Your task to perform on an android device: see tabs open on other devices in the chrome app Image 0: 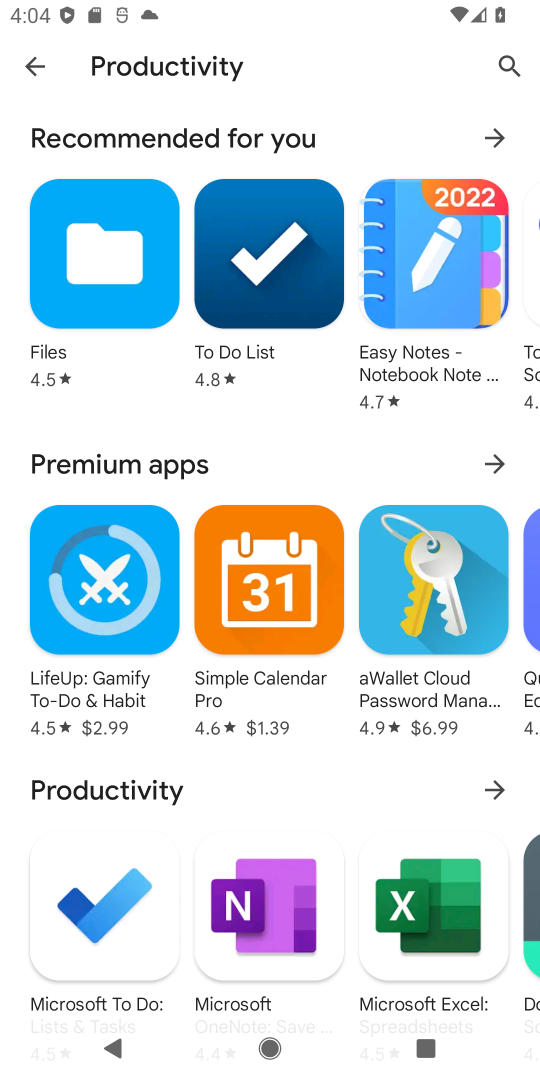
Step 0: press home button
Your task to perform on an android device: see tabs open on other devices in the chrome app Image 1: 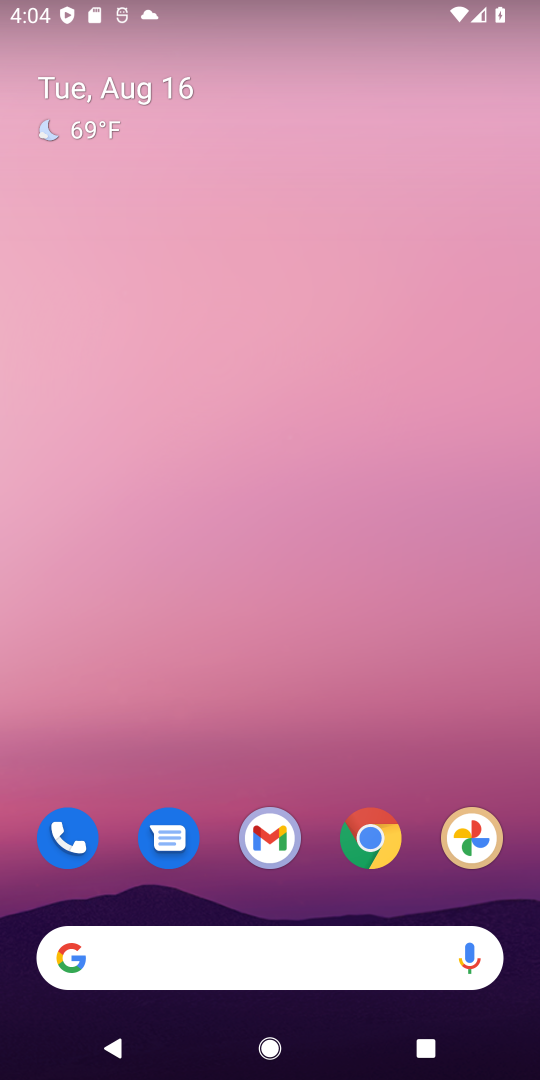
Step 1: click (376, 841)
Your task to perform on an android device: see tabs open on other devices in the chrome app Image 2: 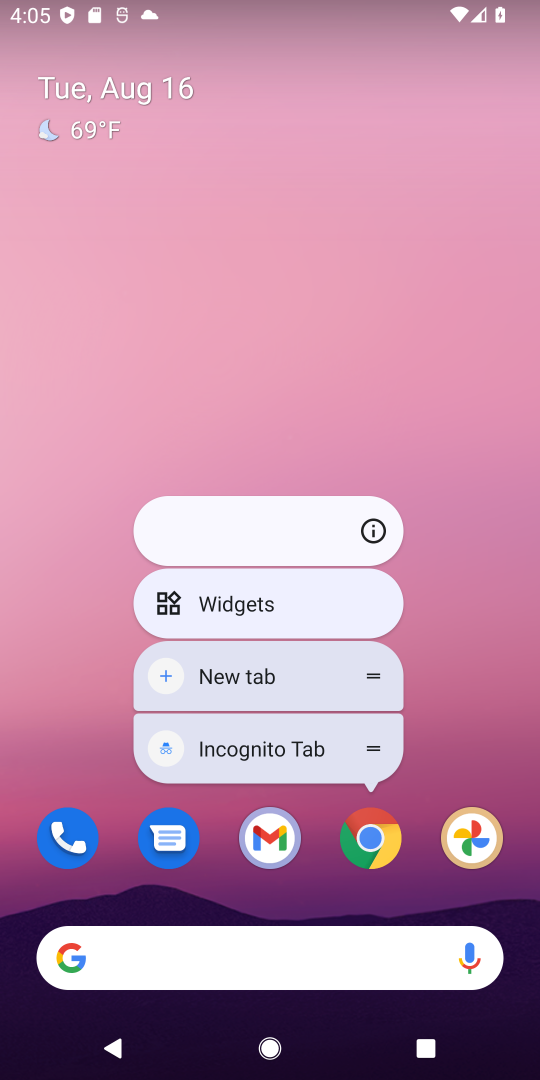
Step 2: click (376, 841)
Your task to perform on an android device: see tabs open on other devices in the chrome app Image 3: 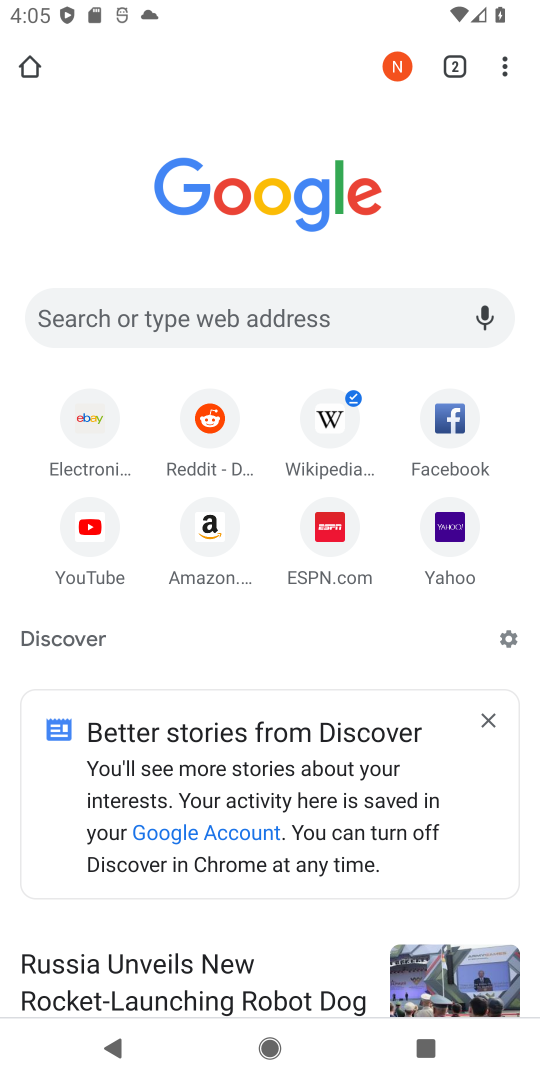
Step 3: click (501, 66)
Your task to perform on an android device: see tabs open on other devices in the chrome app Image 4: 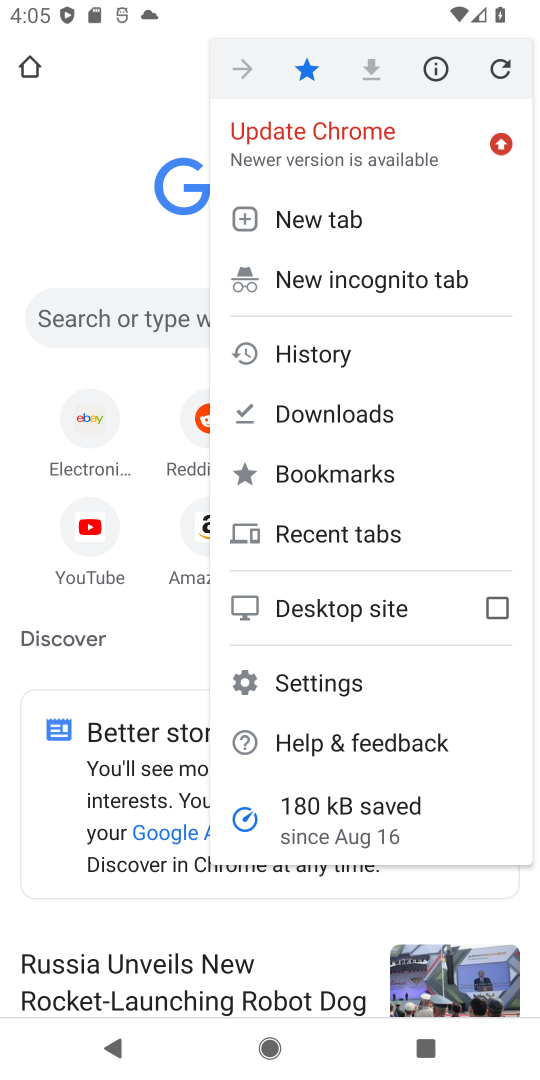
Step 4: click (363, 534)
Your task to perform on an android device: see tabs open on other devices in the chrome app Image 5: 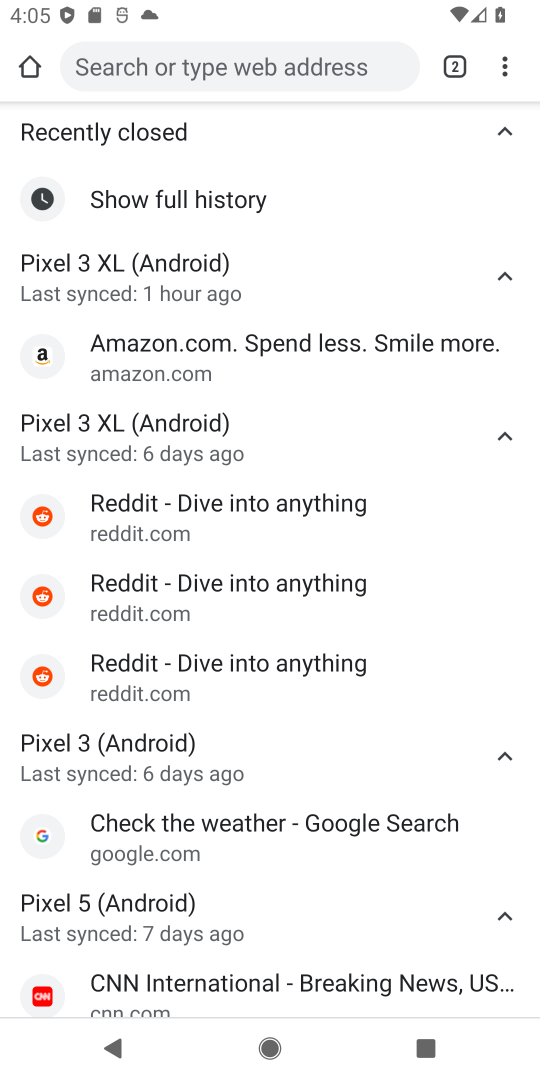
Step 5: task complete